Your task to perform on an android device: What's the weather? Image 0: 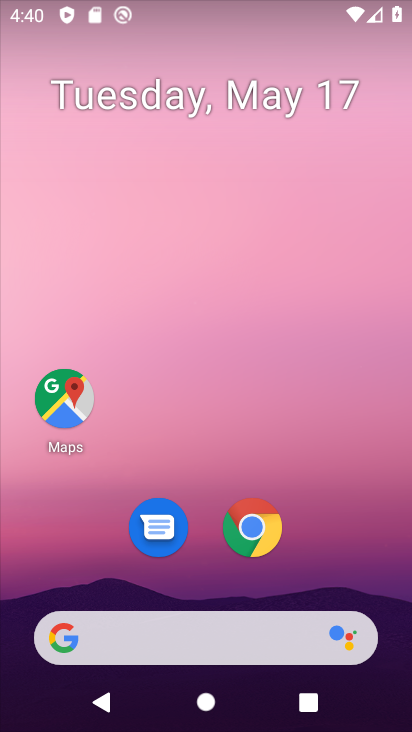
Step 0: drag from (330, 515) to (270, 12)
Your task to perform on an android device: What's the weather? Image 1: 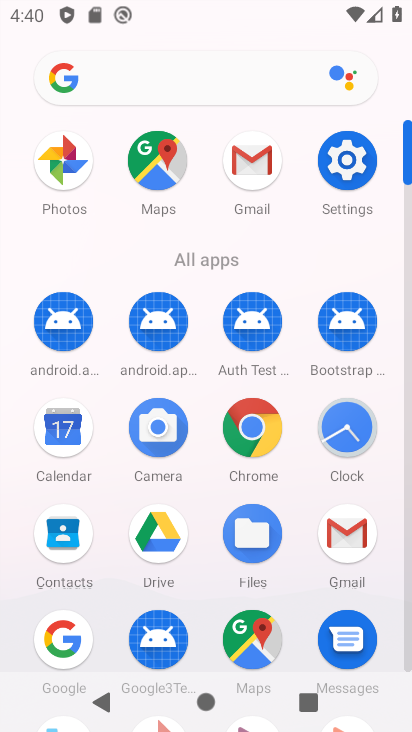
Step 1: drag from (28, 517) to (30, 192)
Your task to perform on an android device: What's the weather? Image 2: 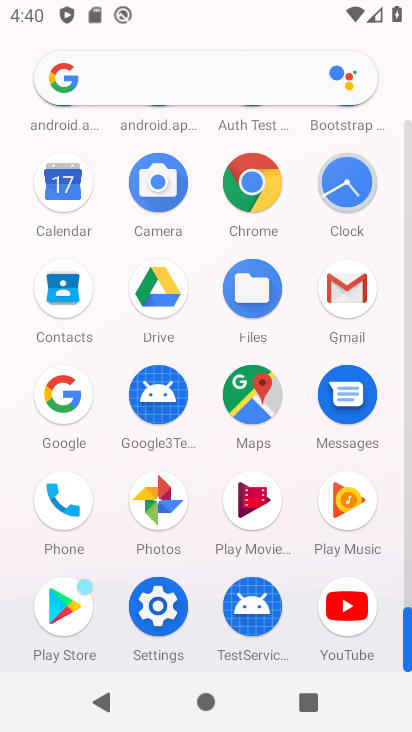
Step 2: click (251, 180)
Your task to perform on an android device: What's the weather? Image 3: 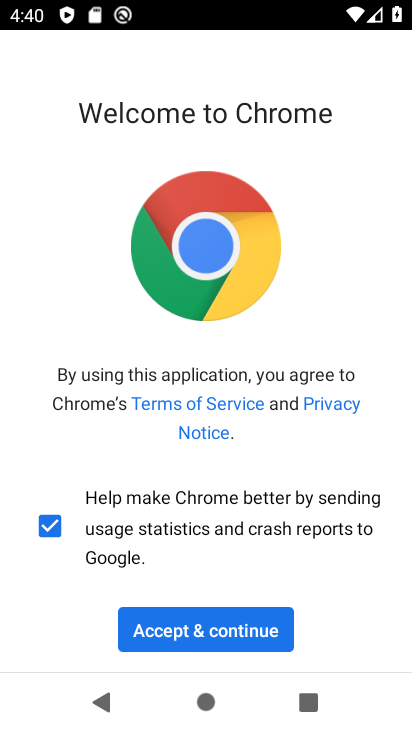
Step 3: click (205, 646)
Your task to perform on an android device: What's the weather? Image 4: 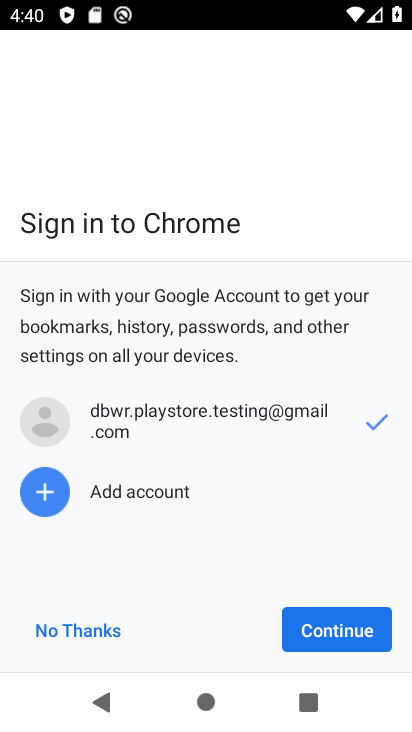
Step 4: click (331, 624)
Your task to perform on an android device: What's the weather? Image 5: 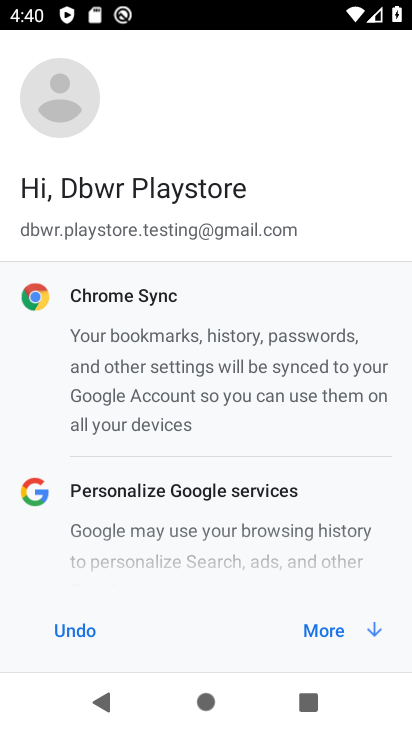
Step 5: click (327, 627)
Your task to perform on an android device: What's the weather? Image 6: 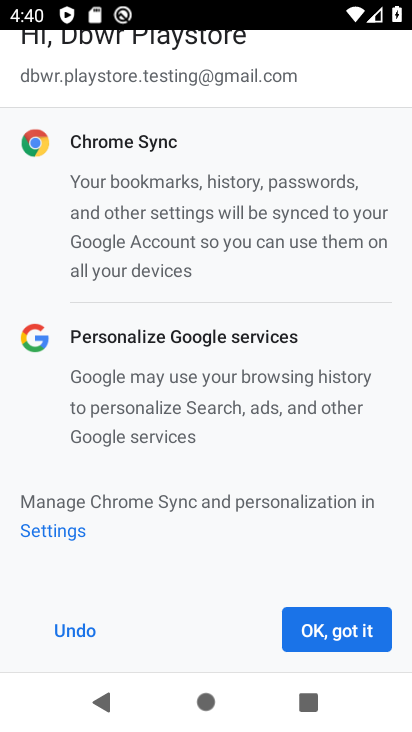
Step 6: click (327, 627)
Your task to perform on an android device: What's the weather? Image 7: 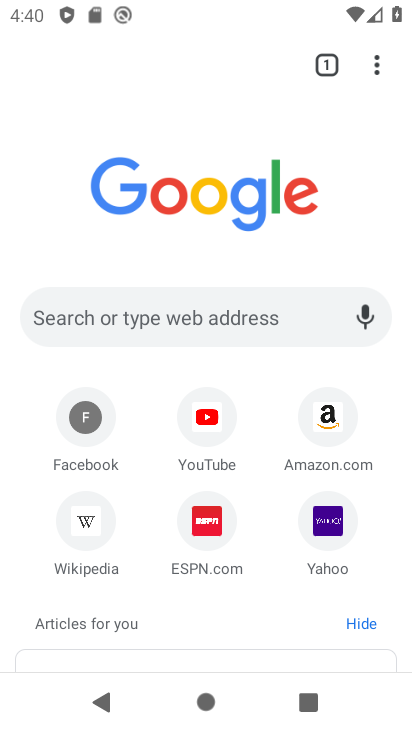
Step 7: click (164, 307)
Your task to perform on an android device: What's the weather? Image 8: 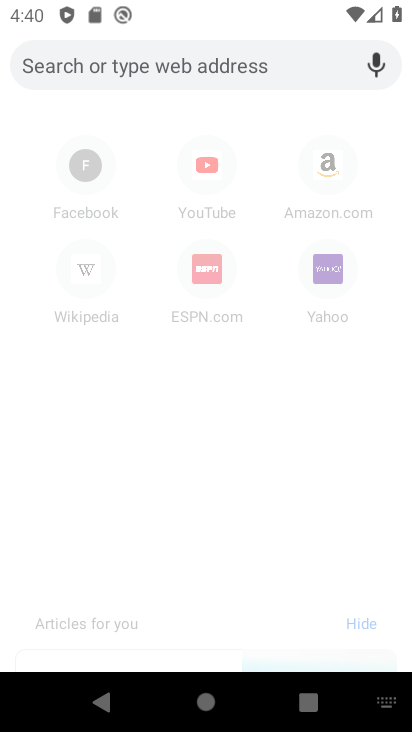
Step 8: type "What's the weather?"
Your task to perform on an android device: What's the weather? Image 9: 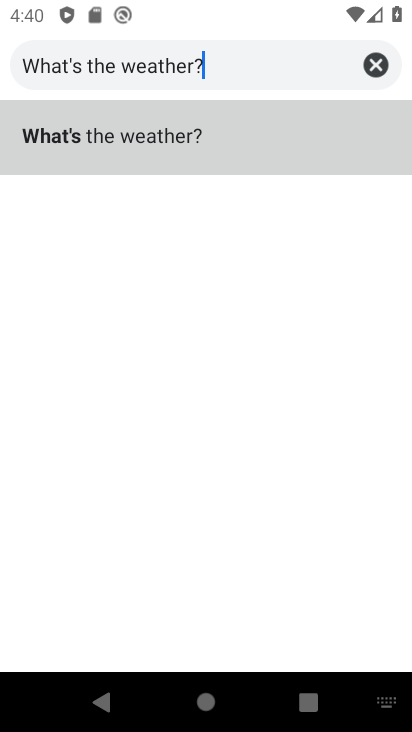
Step 9: type ""
Your task to perform on an android device: What's the weather? Image 10: 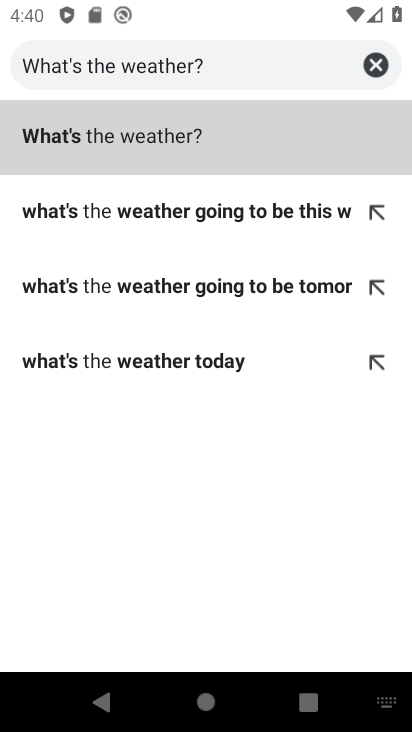
Step 10: click (192, 135)
Your task to perform on an android device: What's the weather? Image 11: 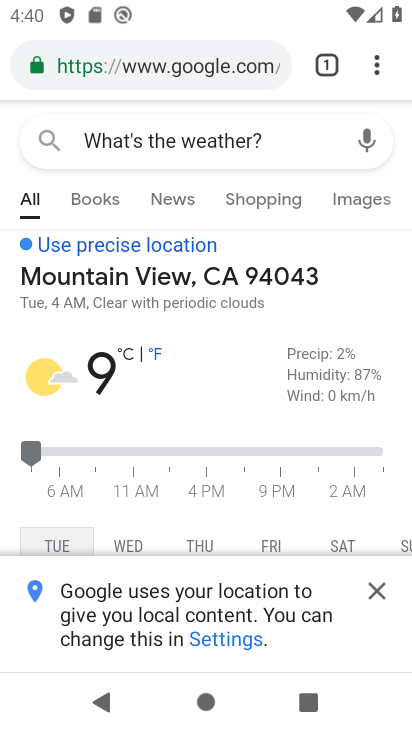
Step 11: task complete